Your task to perform on an android device: open app "PUBG MOBILE" Image 0: 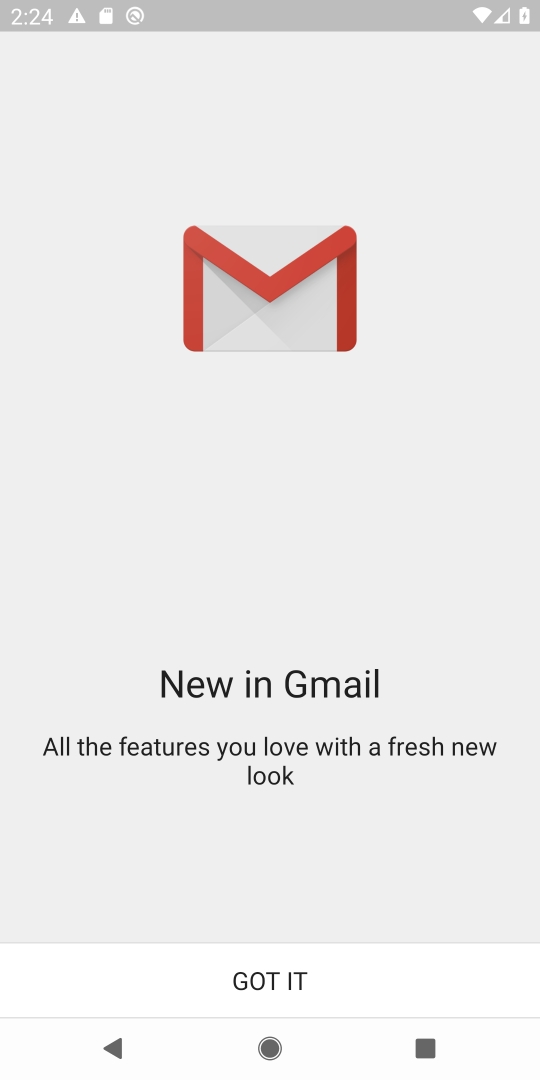
Step 0: press home button
Your task to perform on an android device: open app "PUBG MOBILE" Image 1: 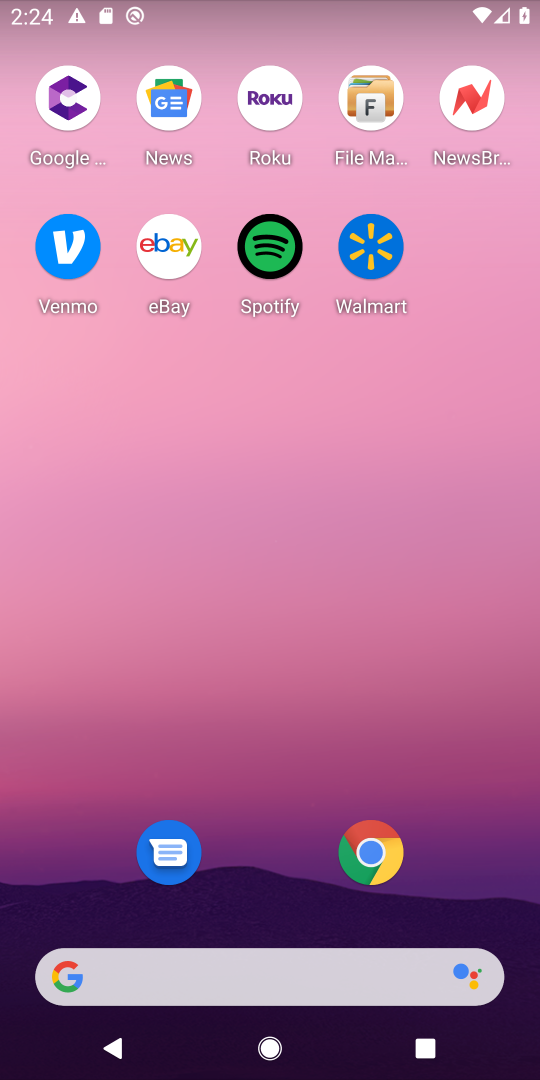
Step 1: drag from (293, 788) to (293, 136)
Your task to perform on an android device: open app "PUBG MOBILE" Image 2: 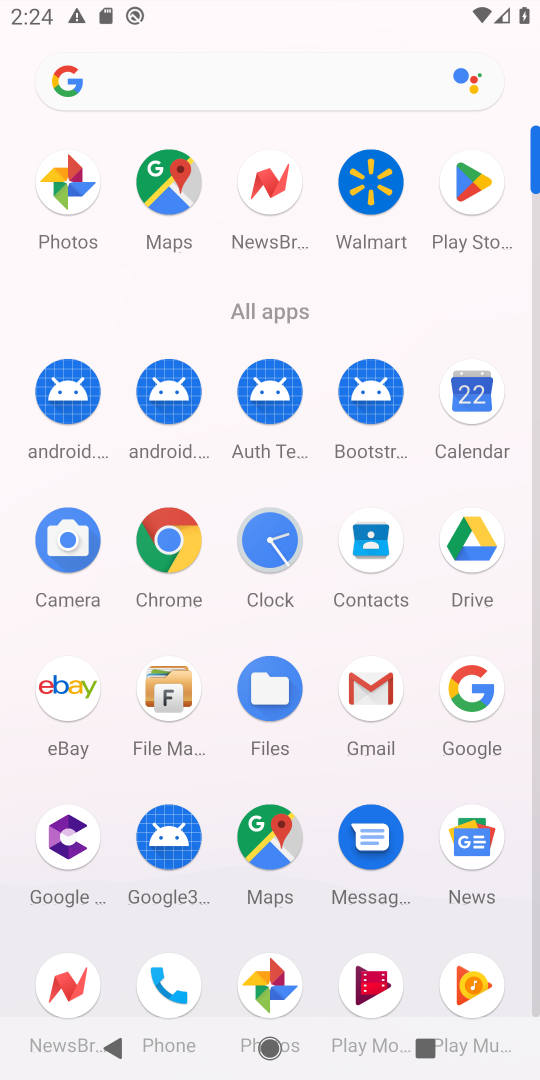
Step 2: click (471, 186)
Your task to perform on an android device: open app "PUBG MOBILE" Image 3: 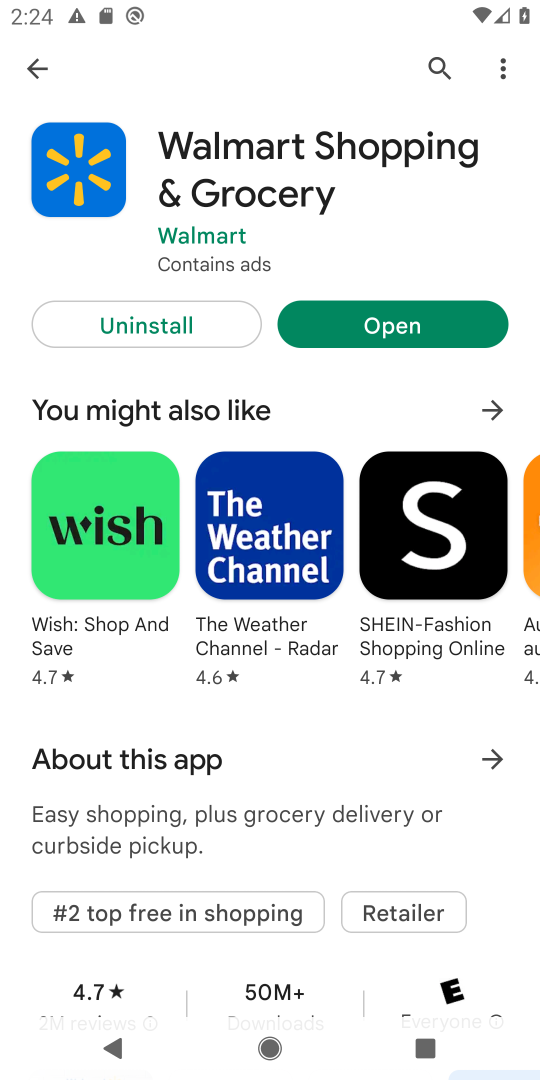
Step 3: click (435, 70)
Your task to perform on an android device: open app "PUBG MOBILE" Image 4: 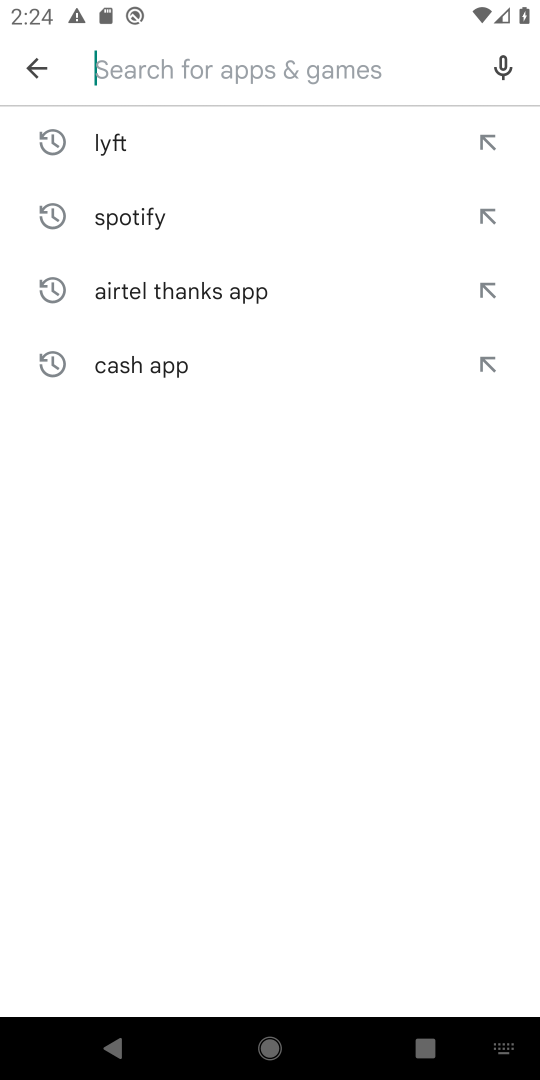
Step 4: type "PUBG MOBILE"
Your task to perform on an android device: open app "PUBG MOBILE" Image 5: 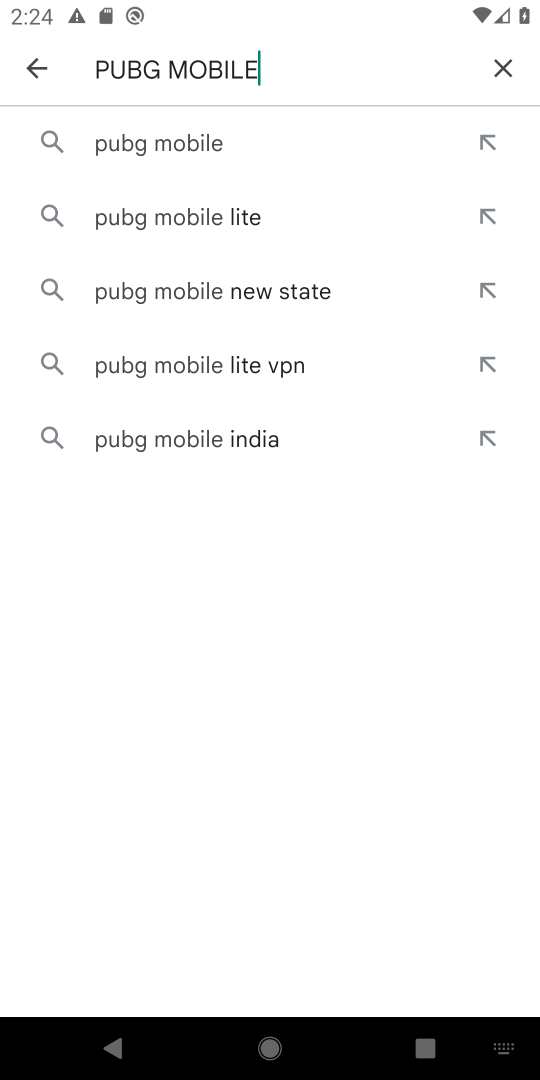
Step 5: type ""
Your task to perform on an android device: open app "PUBG MOBILE" Image 6: 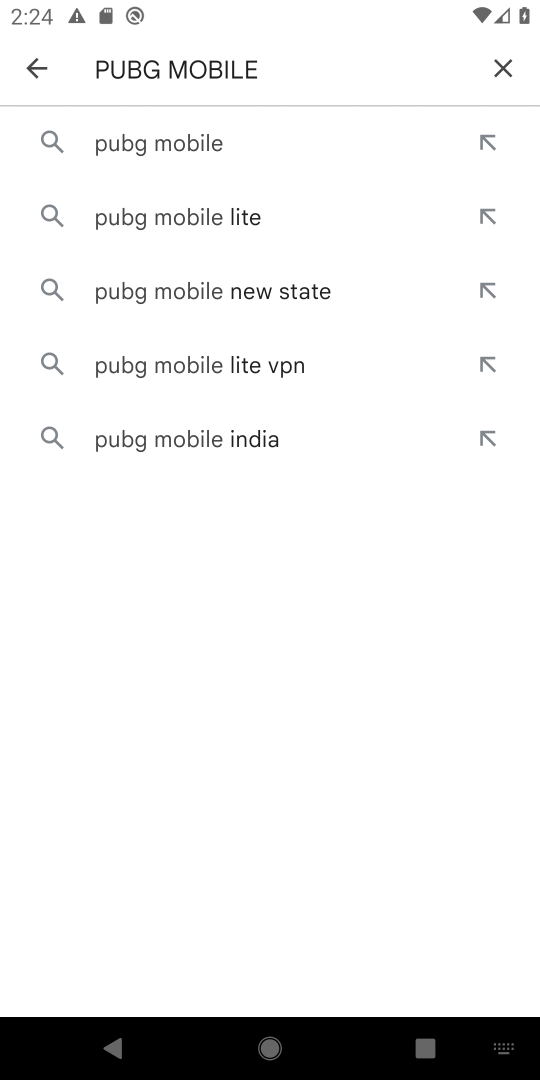
Step 6: click (144, 146)
Your task to perform on an android device: open app "PUBG MOBILE" Image 7: 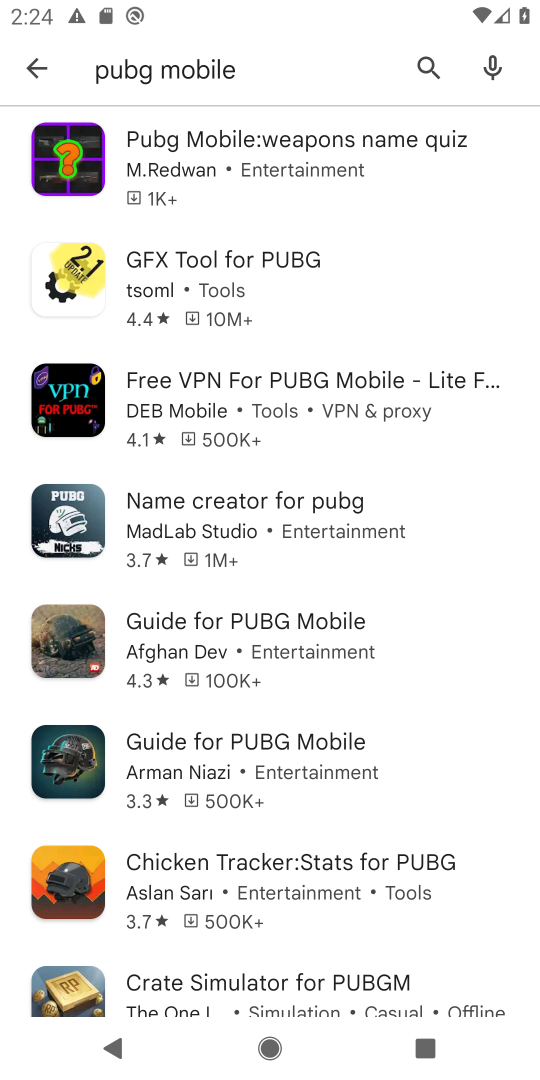
Step 7: task complete